Your task to perform on an android device: turn notification dots off Image 0: 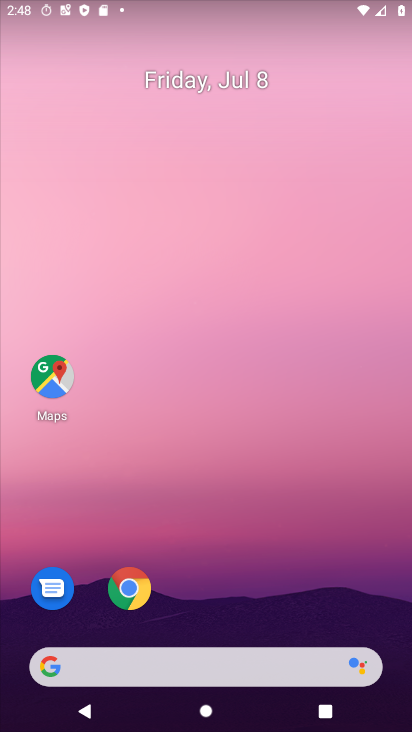
Step 0: press home button
Your task to perform on an android device: turn notification dots off Image 1: 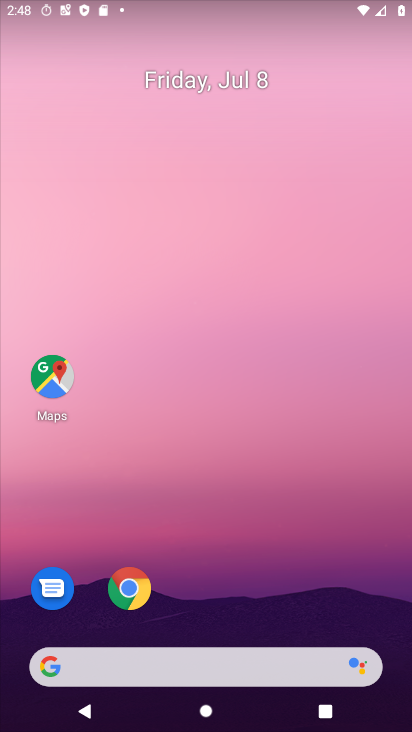
Step 1: drag from (214, 609) to (191, 177)
Your task to perform on an android device: turn notification dots off Image 2: 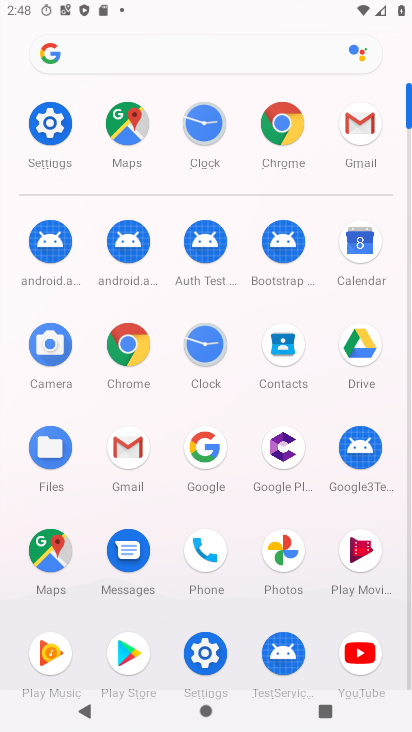
Step 2: click (37, 120)
Your task to perform on an android device: turn notification dots off Image 3: 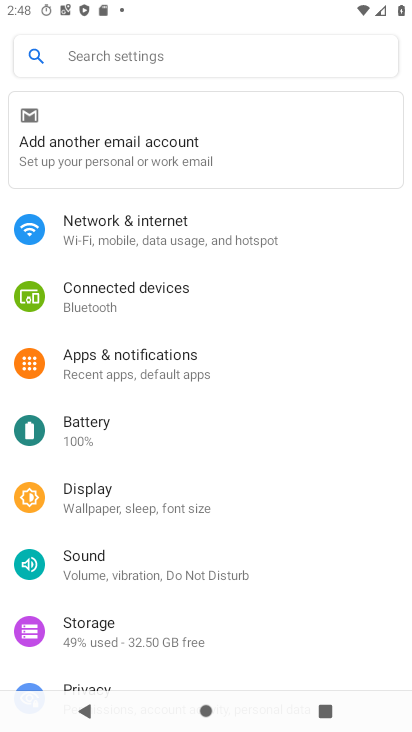
Step 3: click (155, 356)
Your task to perform on an android device: turn notification dots off Image 4: 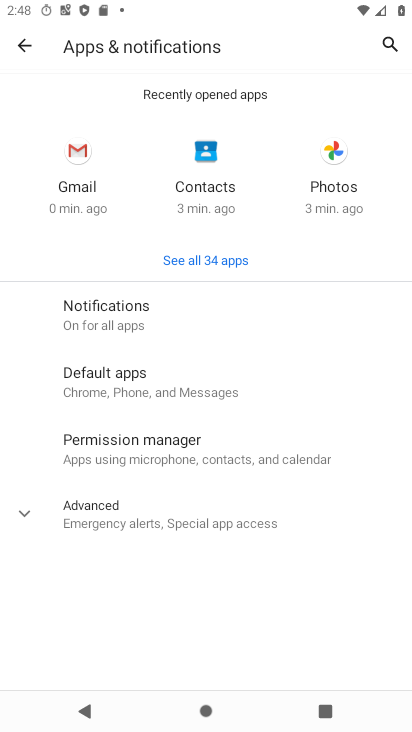
Step 4: click (113, 316)
Your task to perform on an android device: turn notification dots off Image 5: 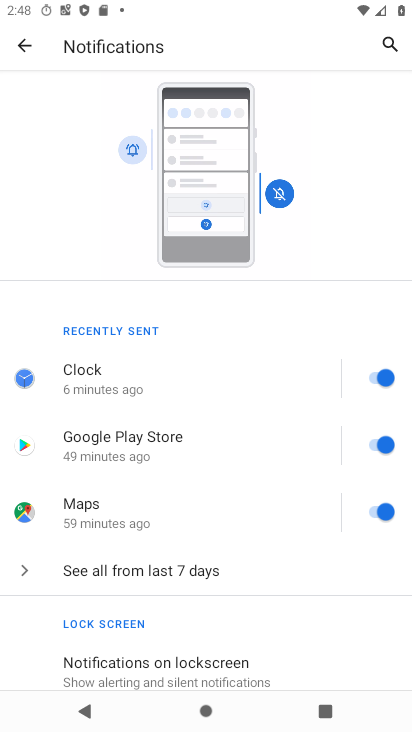
Step 5: drag from (324, 644) to (278, 223)
Your task to perform on an android device: turn notification dots off Image 6: 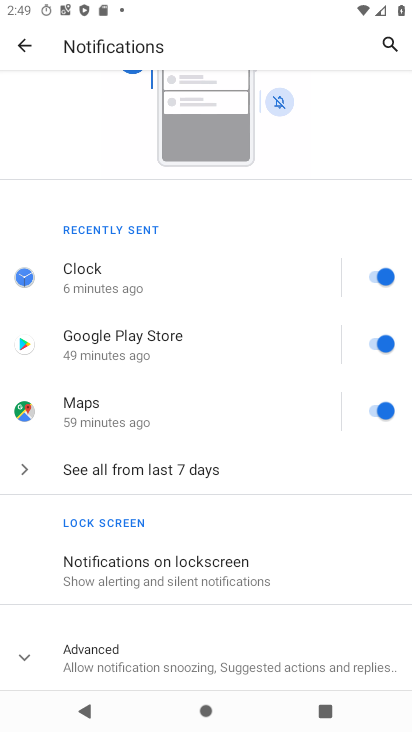
Step 6: click (72, 665)
Your task to perform on an android device: turn notification dots off Image 7: 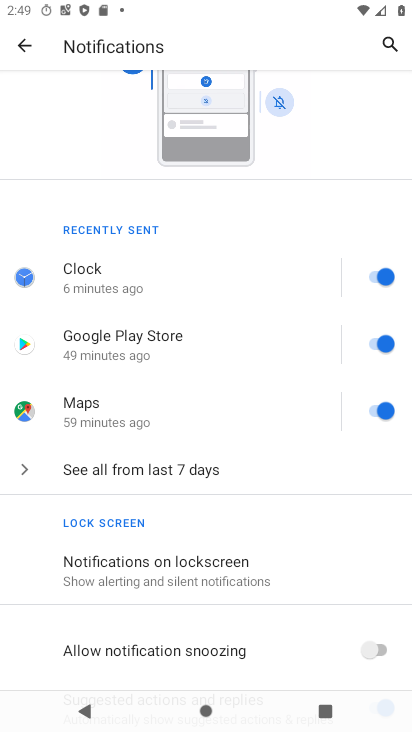
Step 7: task complete